Your task to perform on an android device: check android version Image 0: 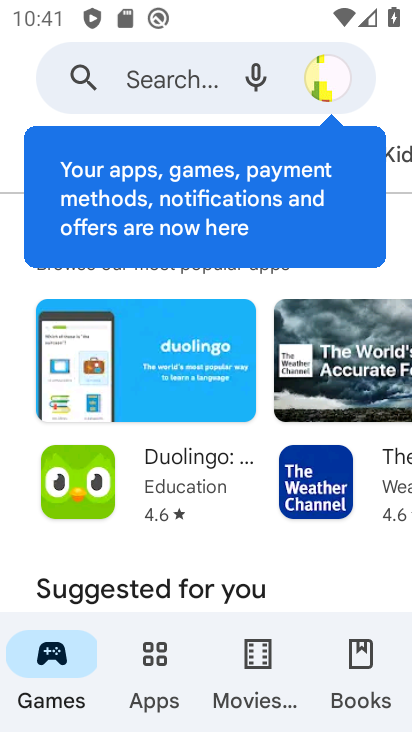
Step 0: press home button
Your task to perform on an android device: check android version Image 1: 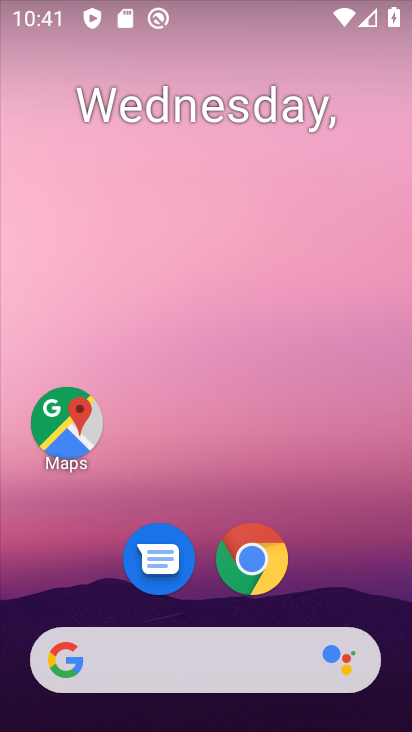
Step 1: drag from (370, 501) to (334, 1)
Your task to perform on an android device: check android version Image 2: 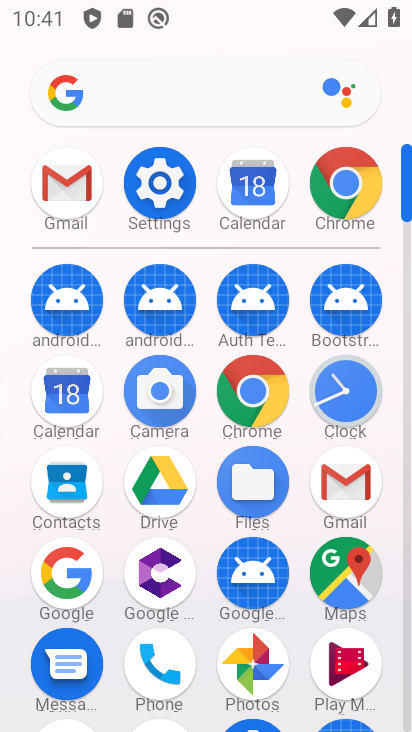
Step 2: click (166, 193)
Your task to perform on an android device: check android version Image 3: 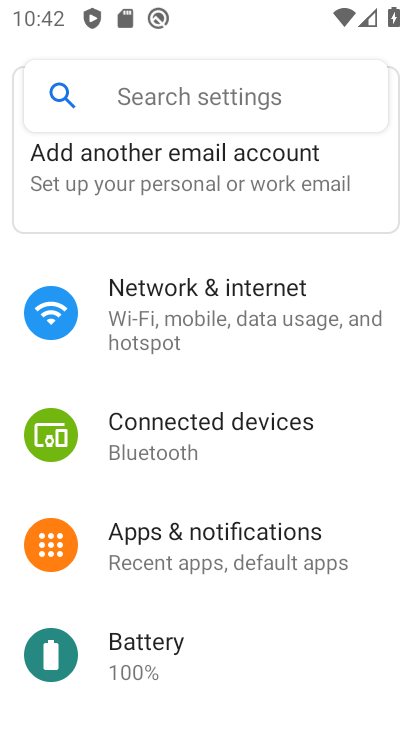
Step 3: drag from (281, 610) to (213, 220)
Your task to perform on an android device: check android version Image 4: 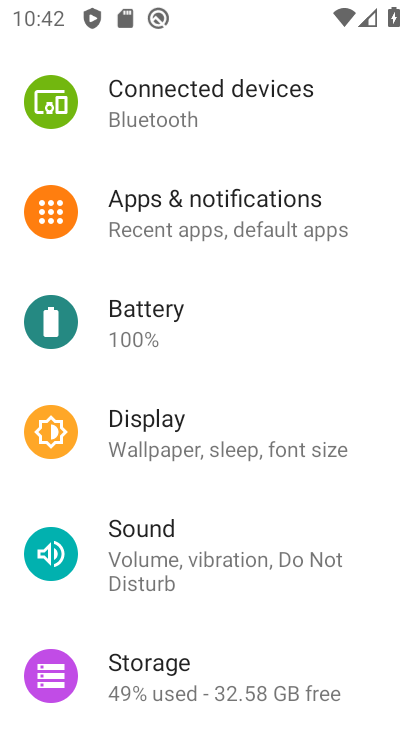
Step 4: drag from (268, 675) to (106, 12)
Your task to perform on an android device: check android version Image 5: 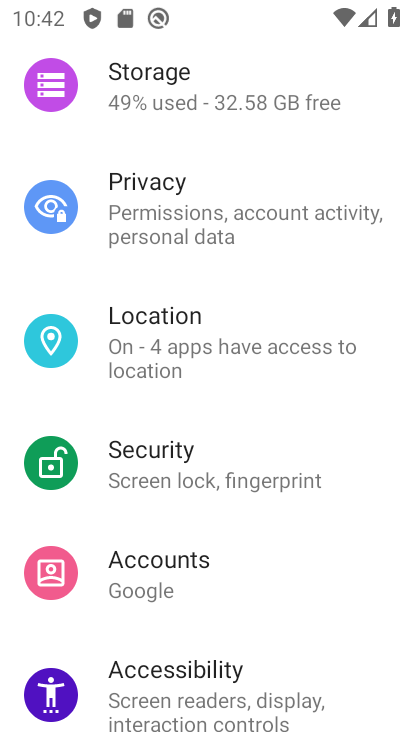
Step 5: drag from (213, 625) to (135, 12)
Your task to perform on an android device: check android version Image 6: 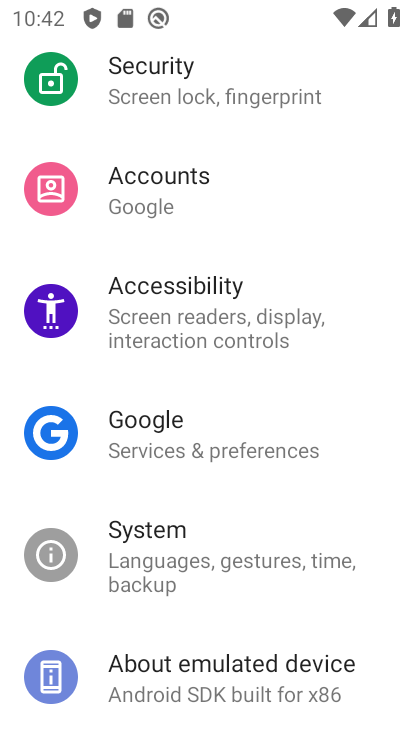
Step 6: click (261, 667)
Your task to perform on an android device: check android version Image 7: 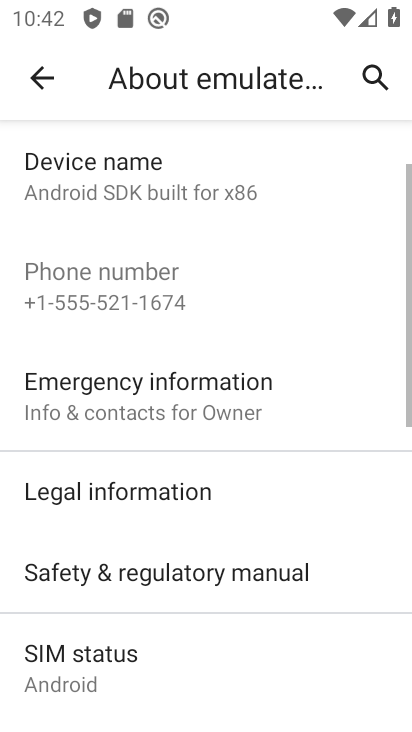
Step 7: click (171, 679)
Your task to perform on an android device: check android version Image 8: 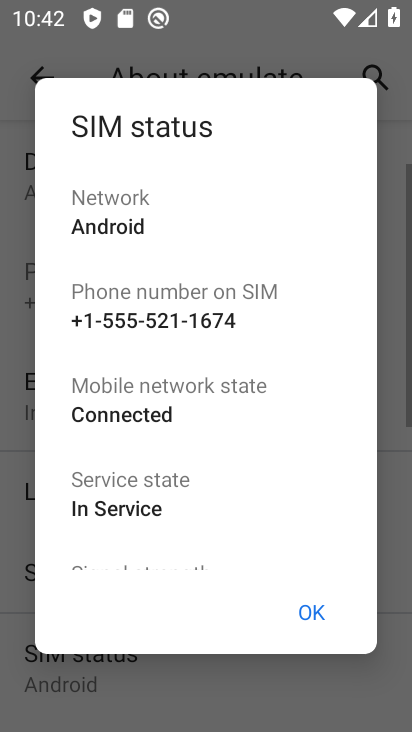
Step 8: drag from (146, 370) to (106, 99)
Your task to perform on an android device: check android version Image 9: 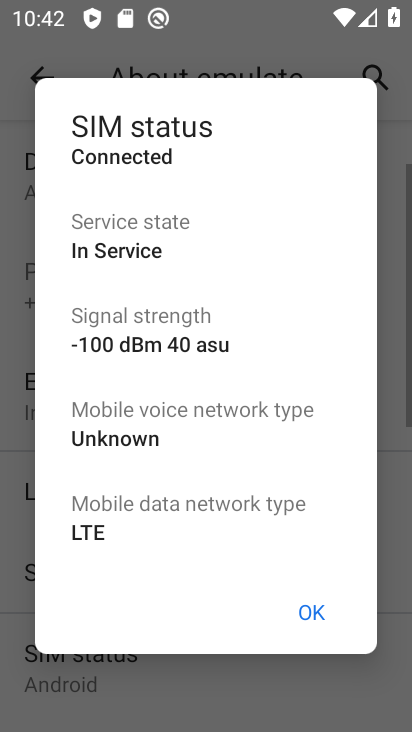
Step 9: drag from (214, 459) to (162, 93)
Your task to perform on an android device: check android version Image 10: 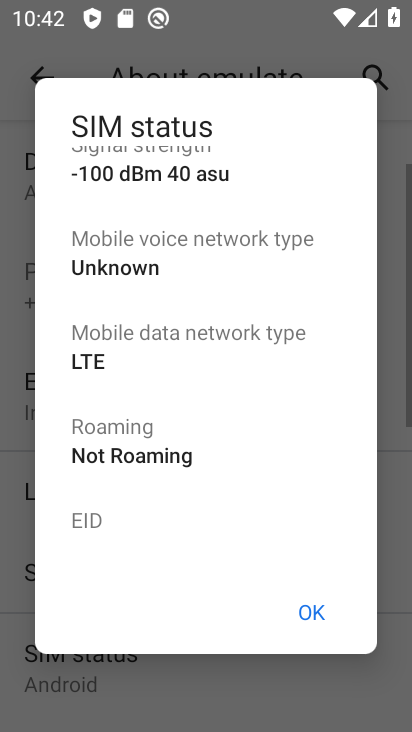
Step 10: click (342, 630)
Your task to perform on an android device: check android version Image 11: 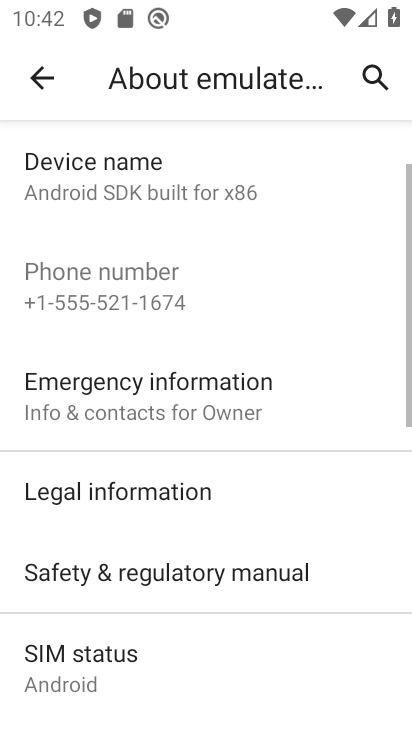
Step 11: drag from (207, 666) to (177, 237)
Your task to perform on an android device: check android version Image 12: 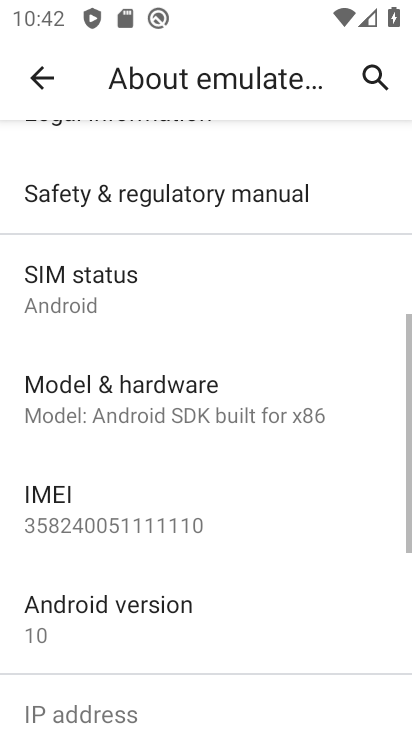
Step 12: drag from (131, 654) to (102, 249)
Your task to perform on an android device: check android version Image 13: 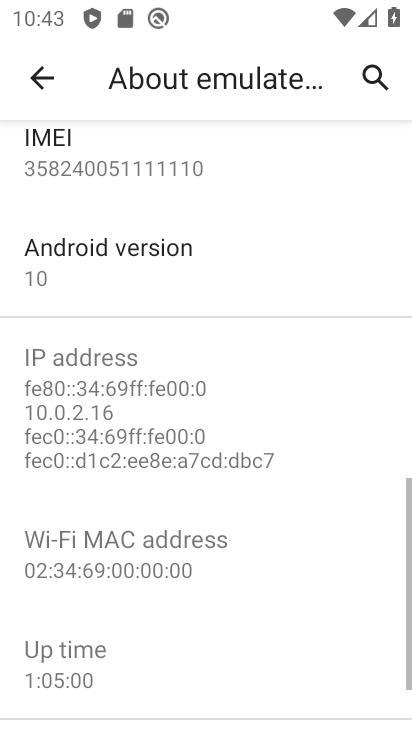
Step 13: drag from (206, 535) to (168, 66)
Your task to perform on an android device: check android version Image 14: 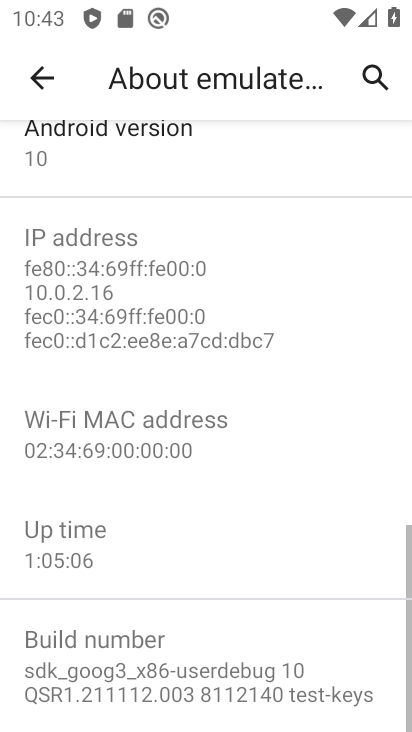
Step 14: drag from (283, 607) to (221, 122)
Your task to perform on an android device: check android version Image 15: 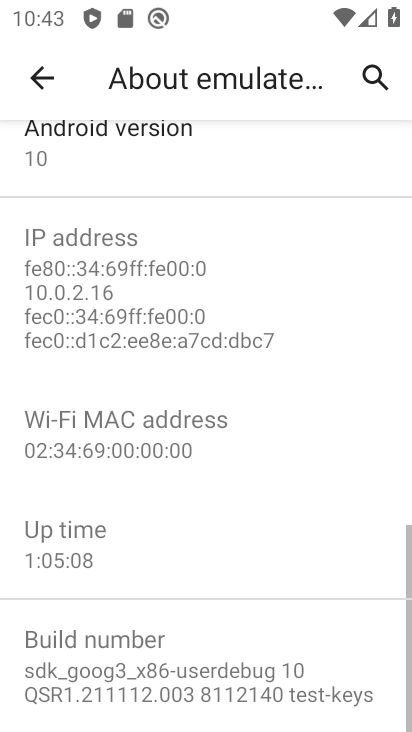
Step 15: drag from (204, 212) to (213, 599)
Your task to perform on an android device: check android version Image 16: 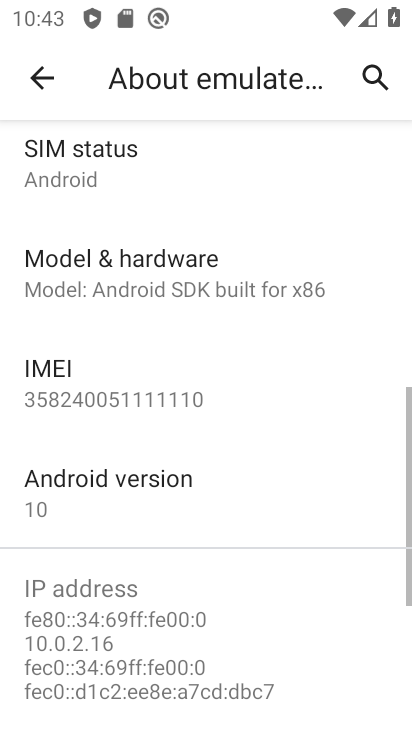
Step 16: click (183, 488)
Your task to perform on an android device: check android version Image 17: 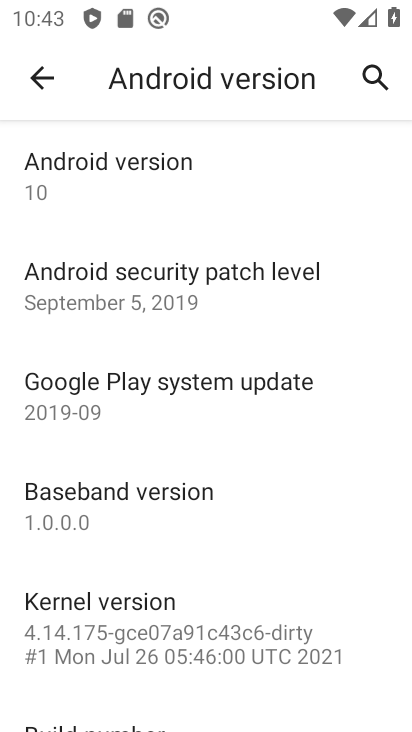
Step 17: task complete